Your task to perform on an android device: Open Google Maps and go to "Timeline" Image 0: 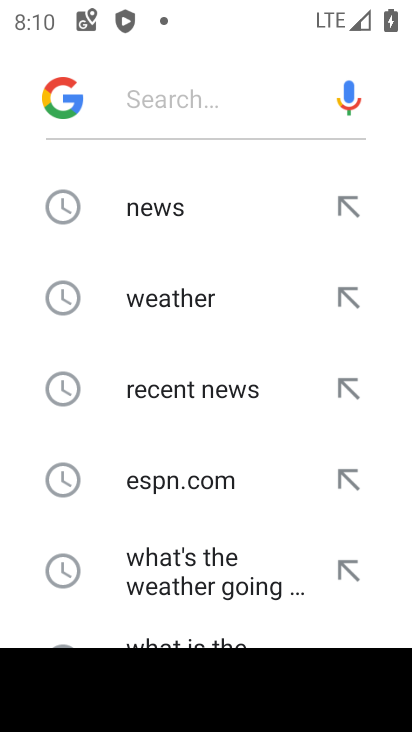
Step 0: press back button
Your task to perform on an android device: Open Google Maps and go to "Timeline" Image 1: 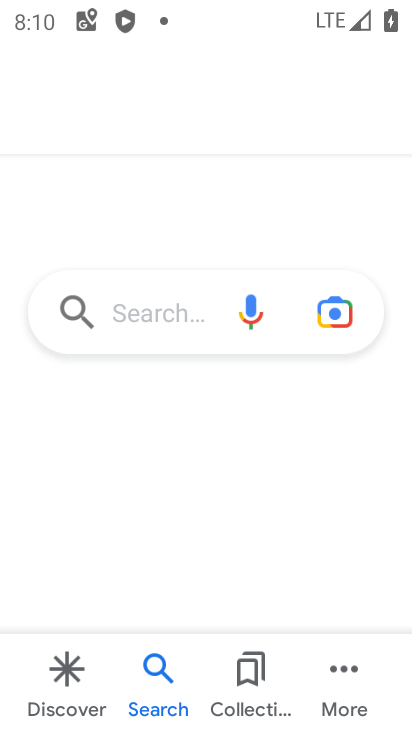
Step 1: press back button
Your task to perform on an android device: Open Google Maps and go to "Timeline" Image 2: 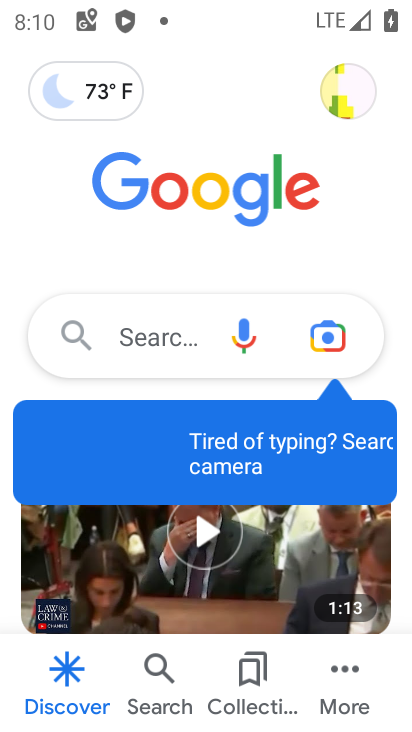
Step 2: press back button
Your task to perform on an android device: Open Google Maps and go to "Timeline" Image 3: 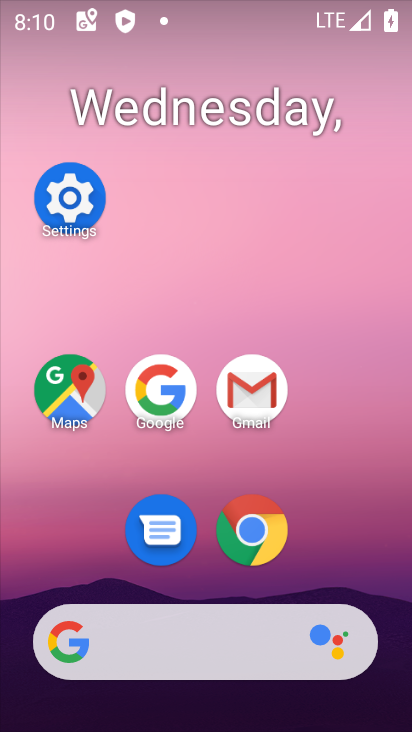
Step 3: click (84, 379)
Your task to perform on an android device: Open Google Maps and go to "Timeline" Image 4: 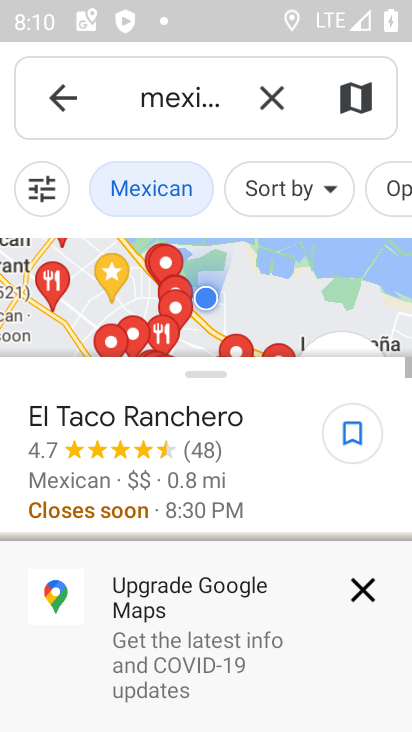
Step 4: click (71, 88)
Your task to perform on an android device: Open Google Maps and go to "Timeline" Image 5: 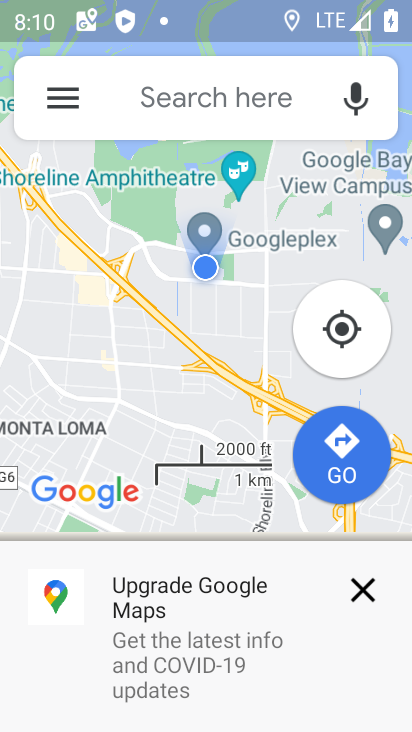
Step 5: click (70, 89)
Your task to perform on an android device: Open Google Maps and go to "Timeline" Image 6: 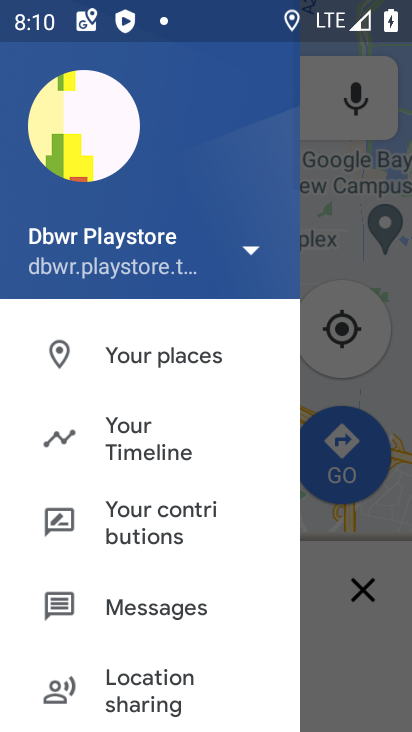
Step 6: click (167, 433)
Your task to perform on an android device: Open Google Maps and go to "Timeline" Image 7: 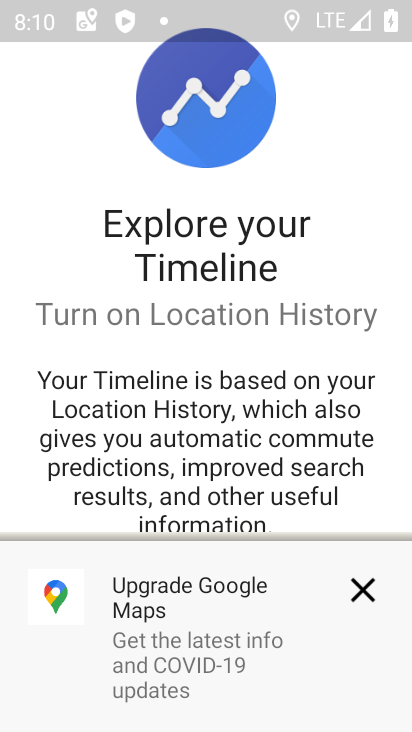
Step 7: click (373, 581)
Your task to perform on an android device: Open Google Maps and go to "Timeline" Image 8: 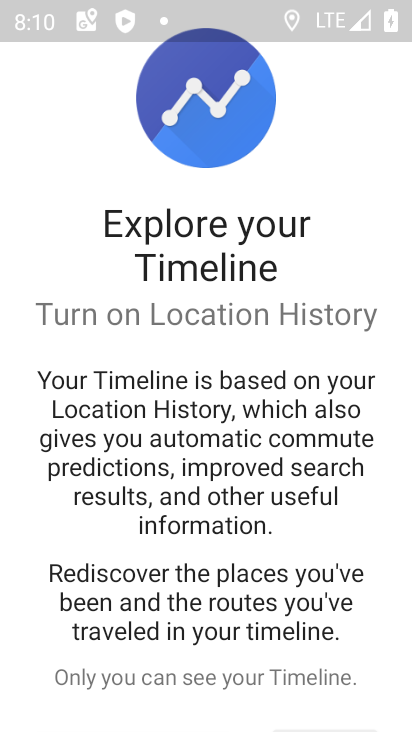
Step 8: drag from (219, 547) to (238, 194)
Your task to perform on an android device: Open Google Maps and go to "Timeline" Image 9: 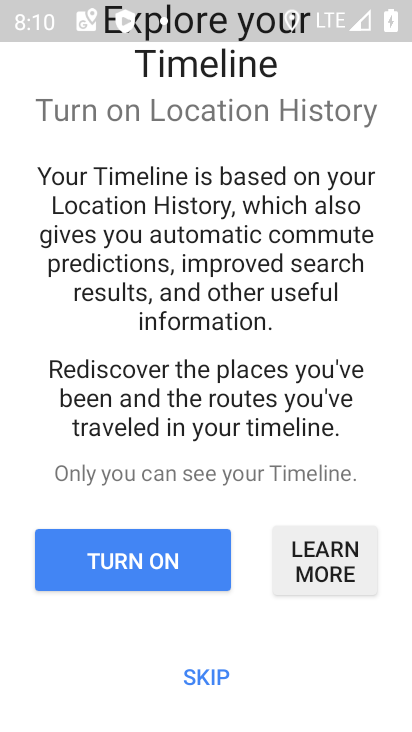
Step 9: click (138, 539)
Your task to perform on an android device: Open Google Maps and go to "Timeline" Image 10: 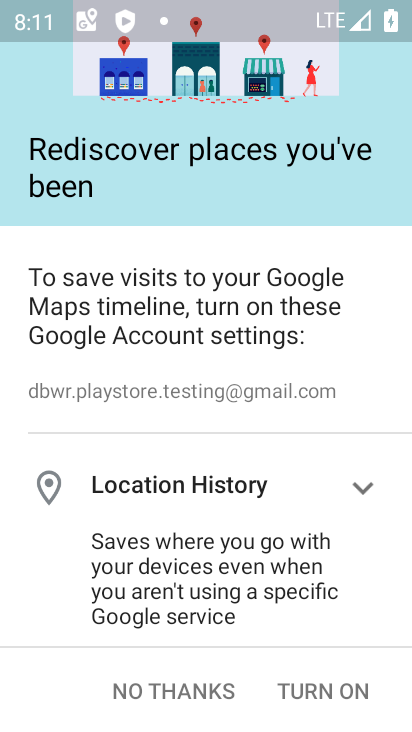
Step 10: click (358, 696)
Your task to perform on an android device: Open Google Maps and go to "Timeline" Image 11: 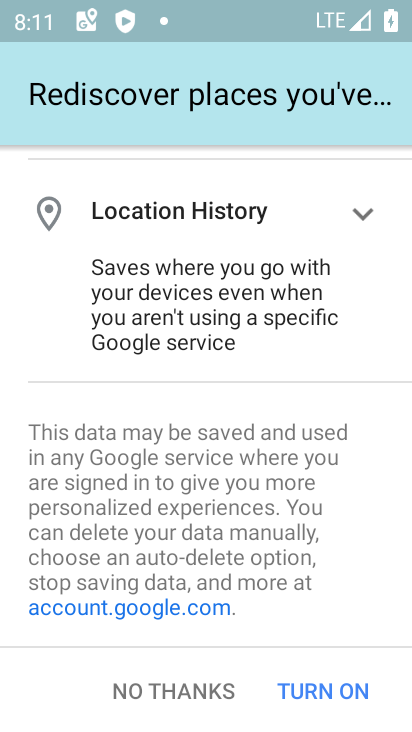
Step 11: click (354, 712)
Your task to perform on an android device: Open Google Maps and go to "Timeline" Image 12: 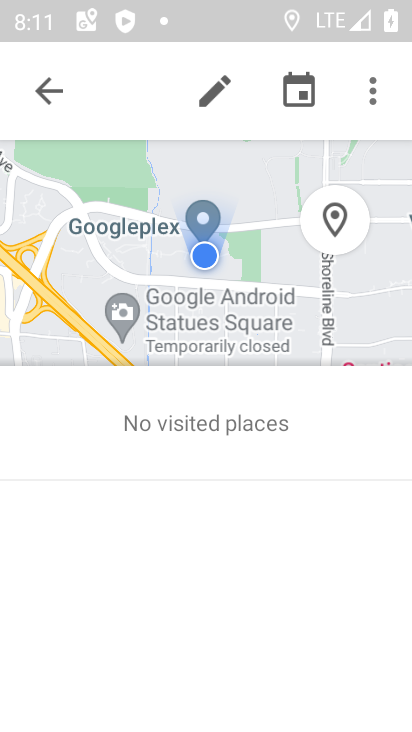
Step 12: task complete